Your task to perform on an android device: Go to Google maps Image 0: 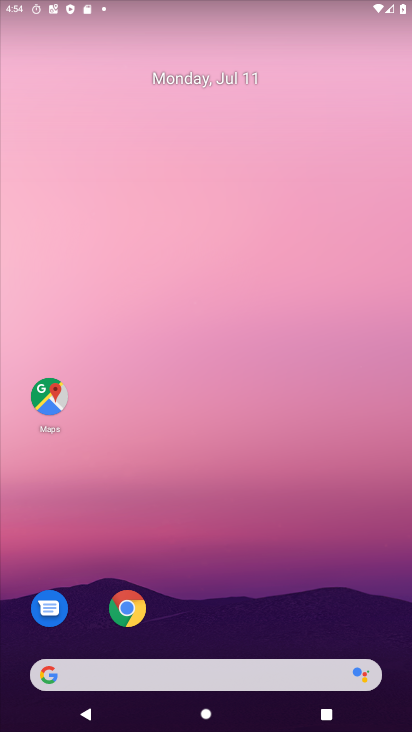
Step 0: drag from (290, 687) to (224, 143)
Your task to perform on an android device: Go to Google maps Image 1: 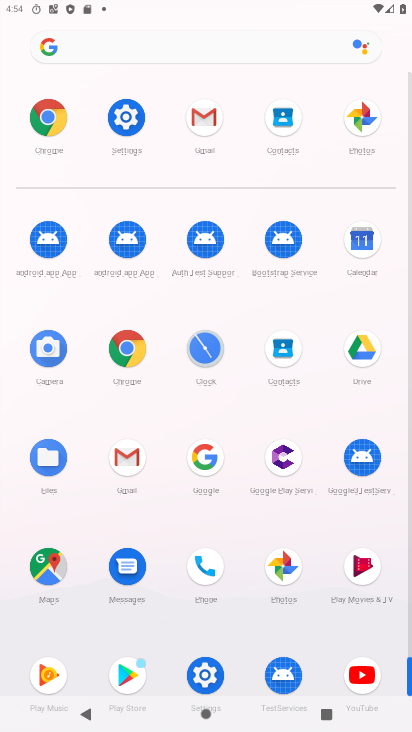
Step 1: click (54, 551)
Your task to perform on an android device: Go to Google maps Image 2: 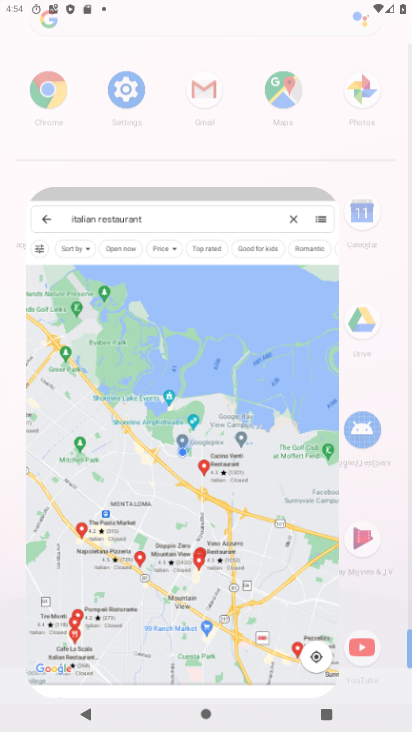
Step 2: click (47, 557)
Your task to perform on an android device: Go to Google maps Image 3: 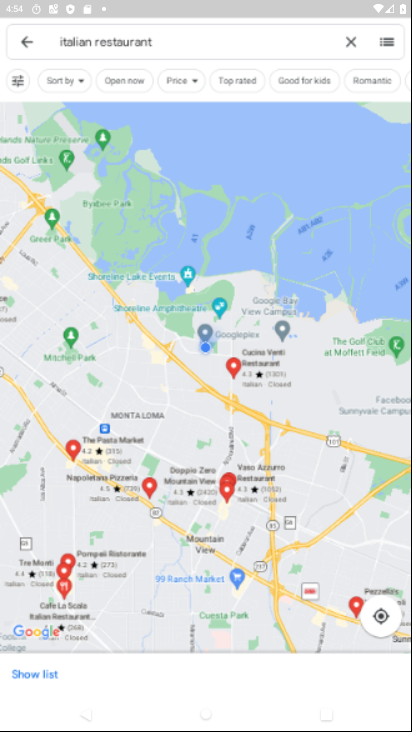
Step 3: click (47, 557)
Your task to perform on an android device: Go to Google maps Image 4: 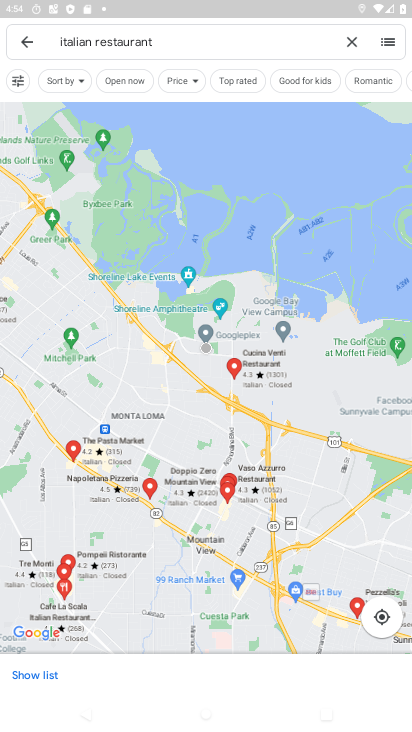
Step 4: task complete